Your task to perform on an android device: Open the calendar and show me this week's events? Image 0: 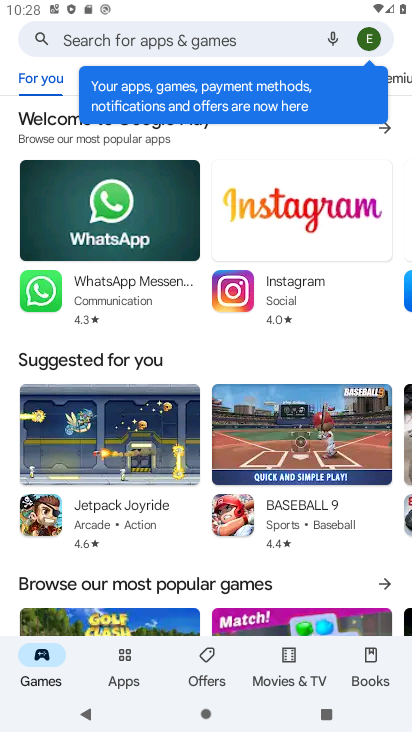
Step 0: press home button
Your task to perform on an android device: Open the calendar and show me this week's events? Image 1: 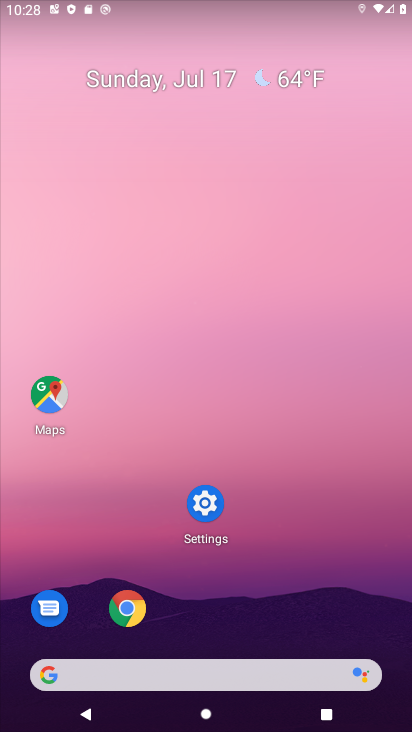
Step 1: drag from (410, 715) to (280, 0)
Your task to perform on an android device: Open the calendar and show me this week's events? Image 2: 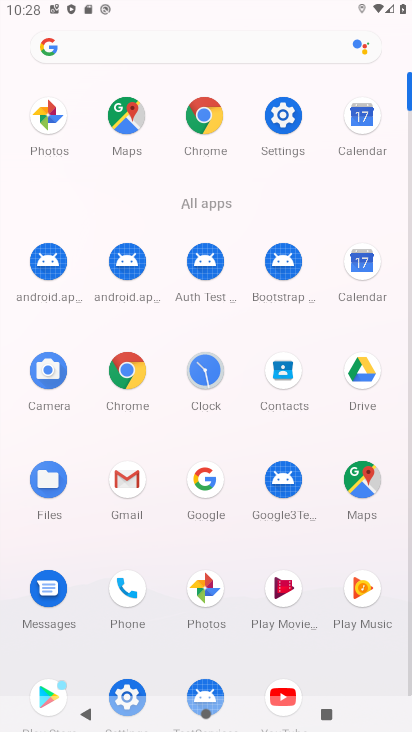
Step 2: click (365, 261)
Your task to perform on an android device: Open the calendar and show me this week's events? Image 3: 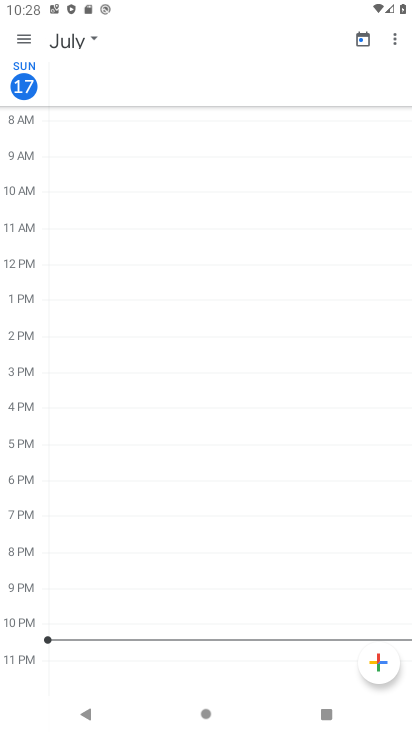
Step 3: click (29, 37)
Your task to perform on an android device: Open the calendar and show me this week's events? Image 4: 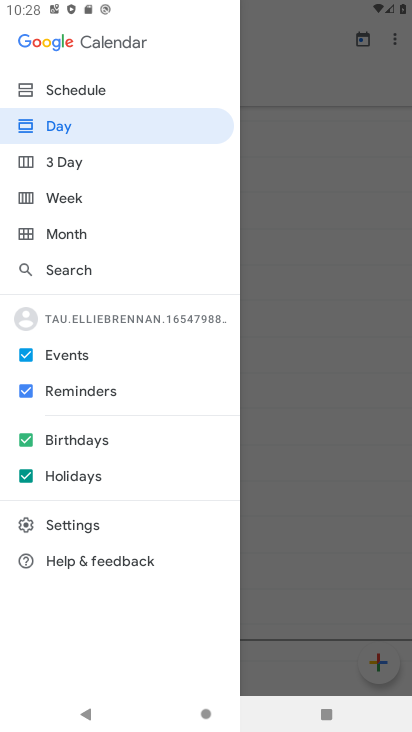
Step 4: click (52, 196)
Your task to perform on an android device: Open the calendar and show me this week's events? Image 5: 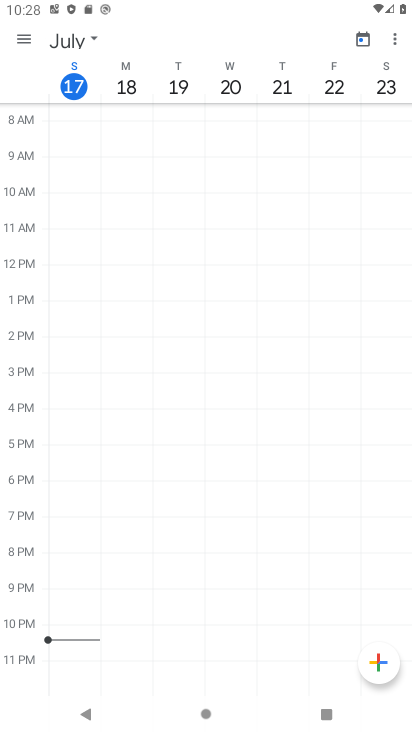
Step 5: click (123, 82)
Your task to perform on an android device: Open the calendar and show me this week's events? Image 6: 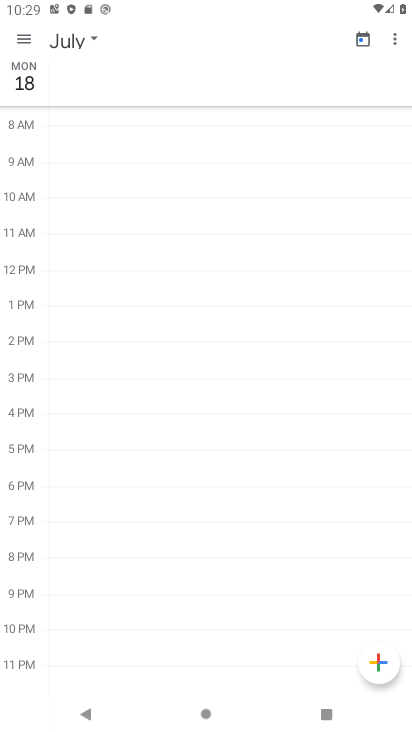
Step 6: task complete